Your task to perform on an android device: open a bookmark in the chrome app Image 0: 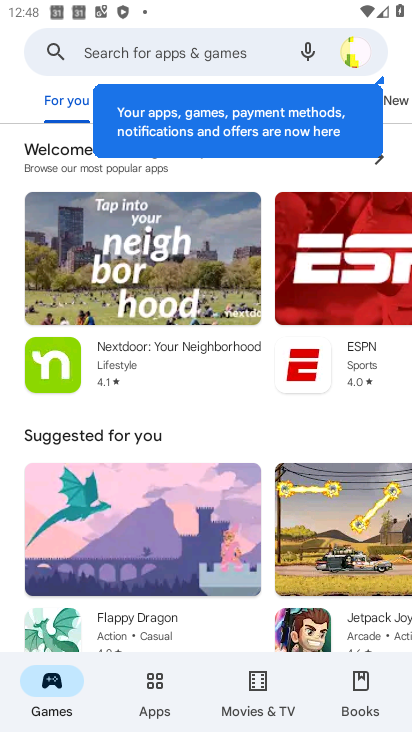
Step 0: press home button
Your task to perform on an android device: open a bookmark in the chrome app Image 1: 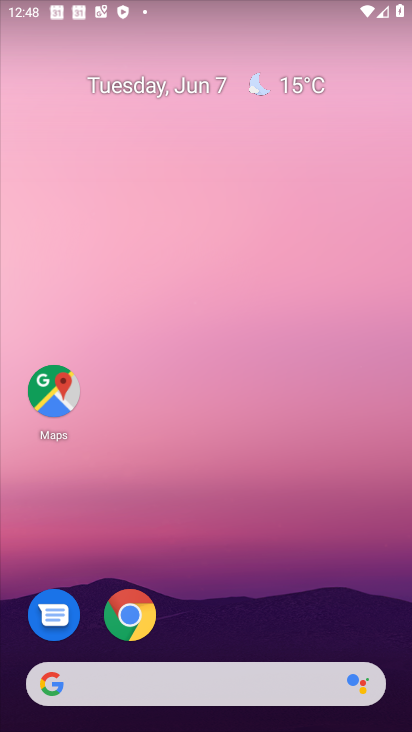
Step 1: drag from (228, 610) to (195, 133)
Your task to perform on an android device: open a bookmark in the chrome app Image 2: 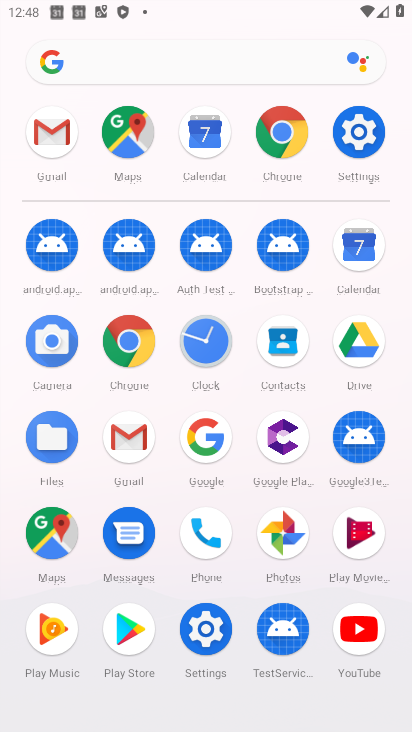
Step 2: click (130, 350)
Your task to perform on an android device: open a bookmark in the chrome app Image 3: 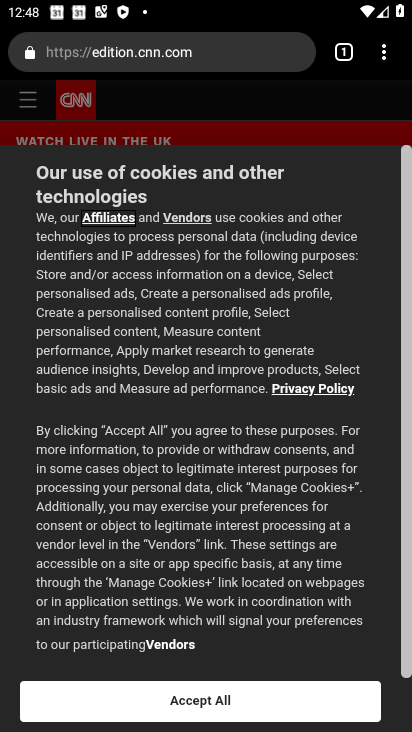
Step 3: click (379, 47)
Your task to perform on an android device: open a bookmark in the chrome app Image 4: 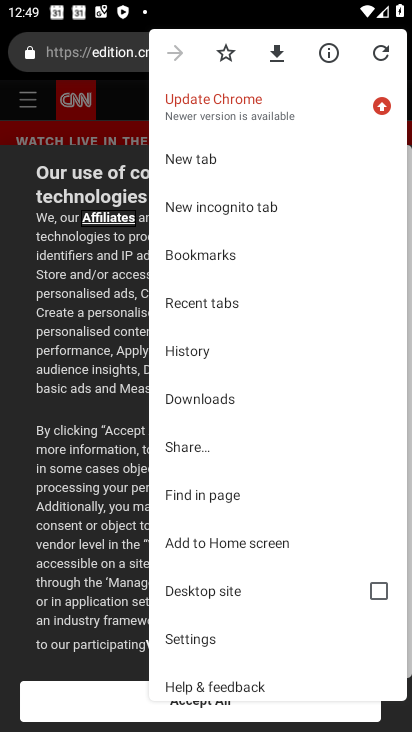
Step 4: click (203, 251)
Your task to perform on an android device: open a bookmark in the chrome app Image 5: 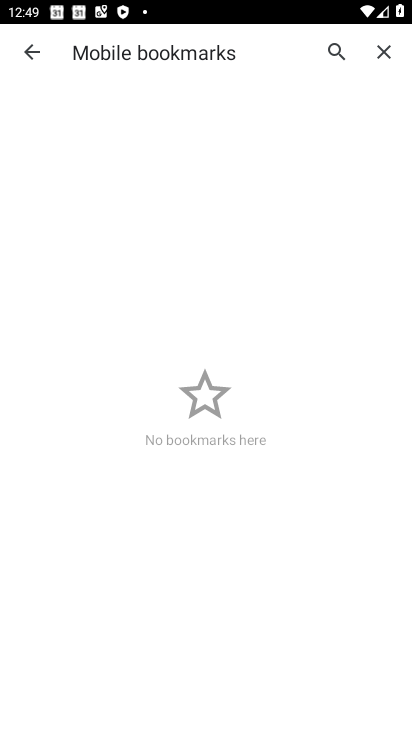
Step 5: task complete